Your task to perform on an android device: Add "alienware area 51" to the cart on bestbuy.com Image 0: 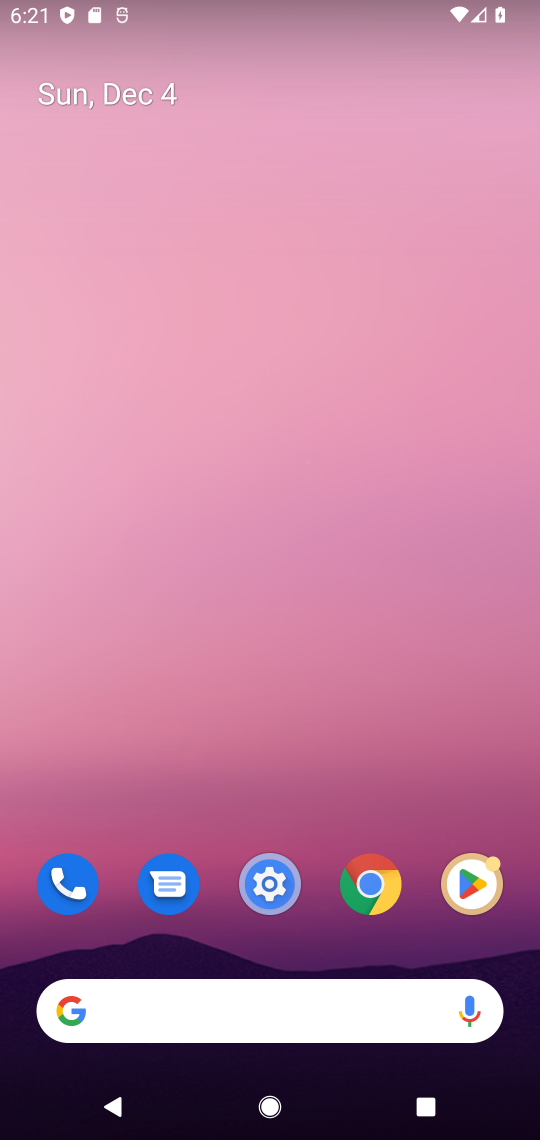
Step 0: drag from (175, 658) to (48, 36)
Your task to perform on an android device: Add "alienware area 51" to the cart on bestbuy.com Image 1: 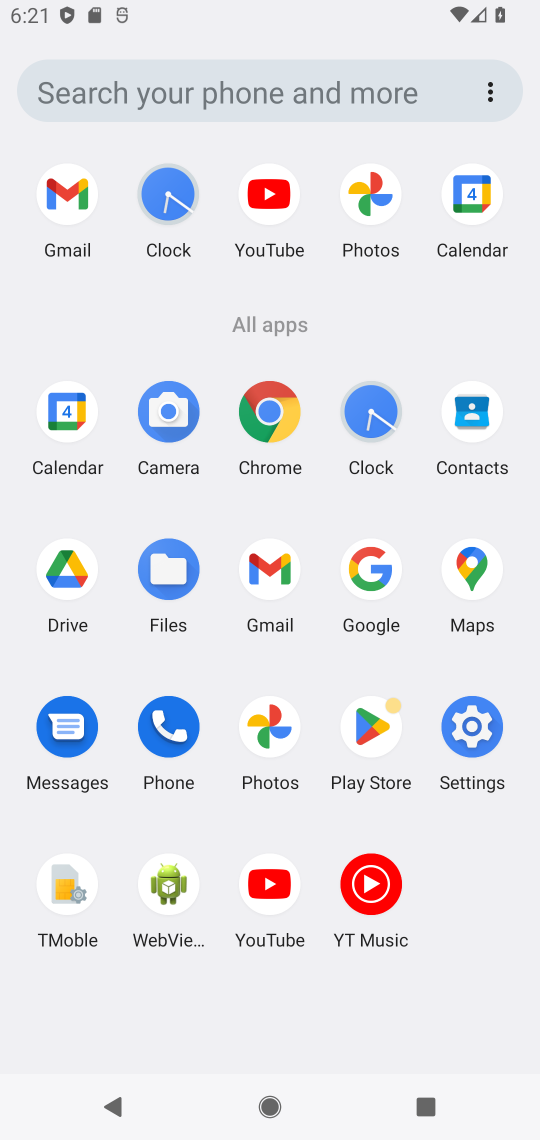
Step 1: click (384, 565)
Your task to perform on an android device: Add "alienware area 51" to the cart on bestbuy.com Image 2: 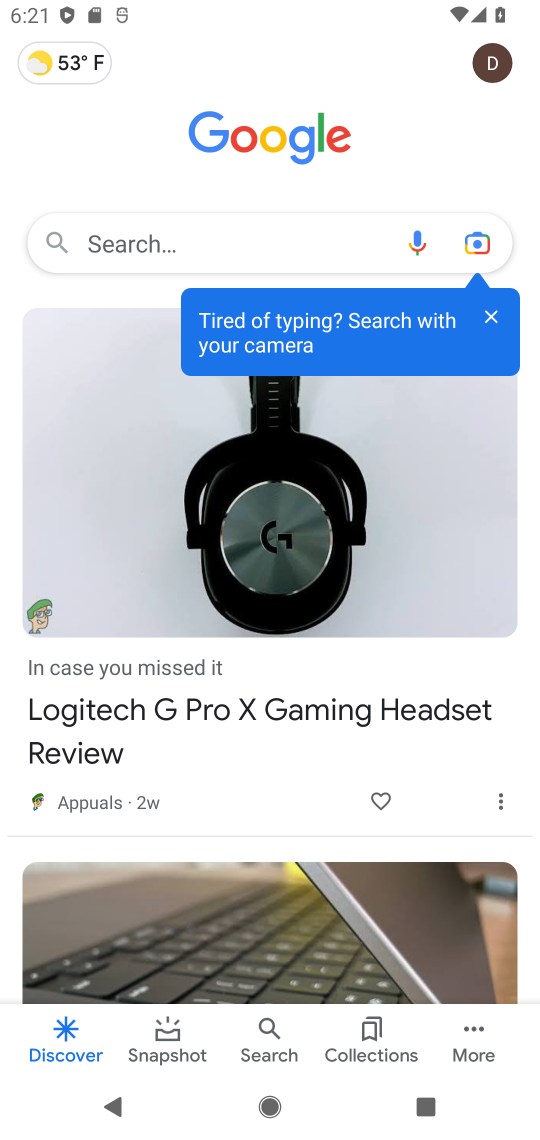
Step 2: click (110, 242)
Your task to perform on an android device: Add "alienware area 51" to the cart on bestbuy.com Image 3: 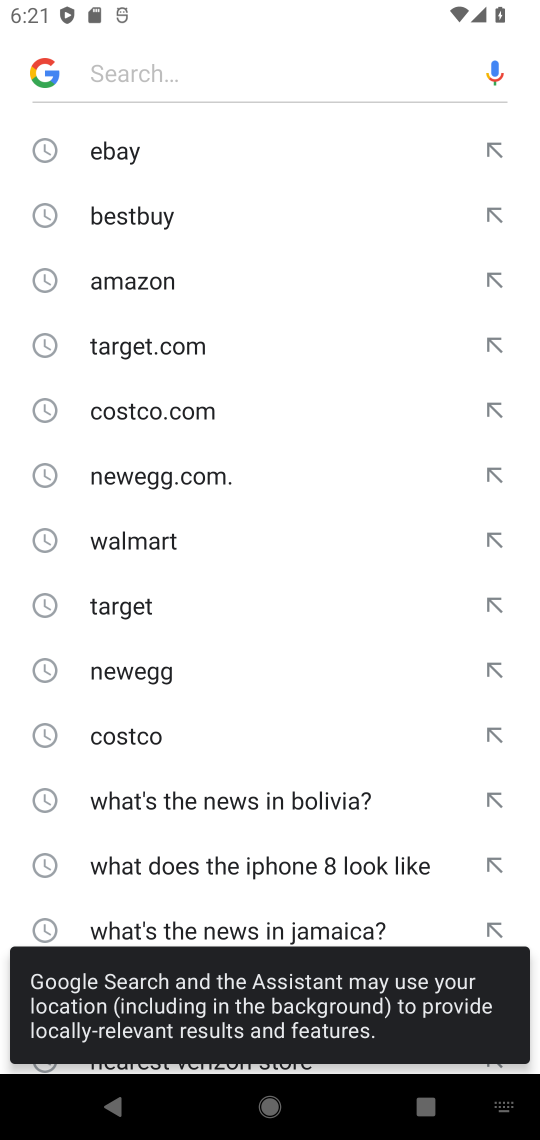
Step 3: click (121, 229)
Your task to perform on an android device: Add "alienware area 51" to the cart on bestbuy.com Image 4: 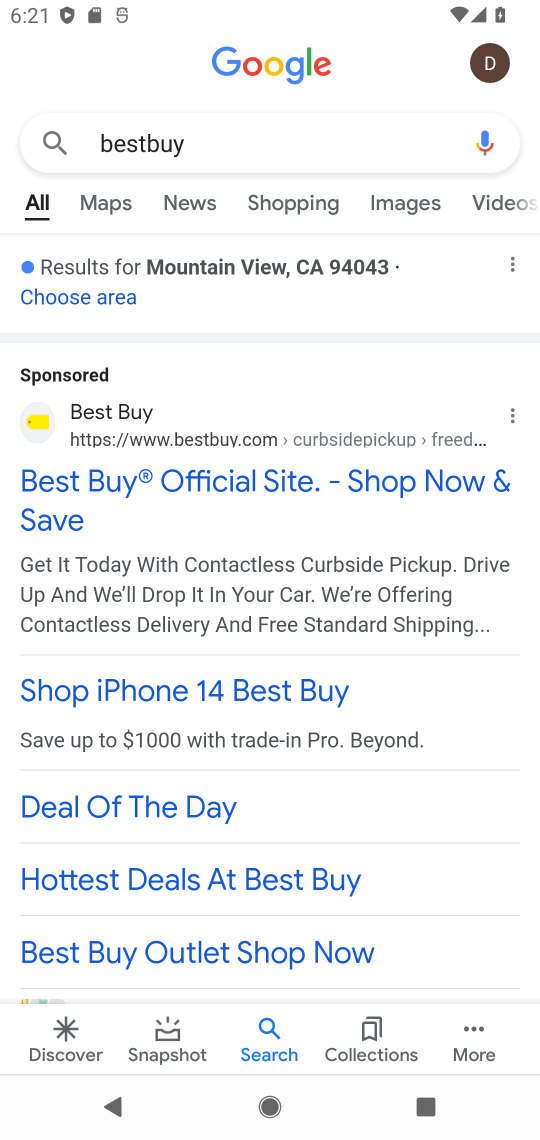
Step 4: click (234, 474)
Your task to perform on an android device: Add "alienware area 51" to the cart on bestbuy.com Image 5: 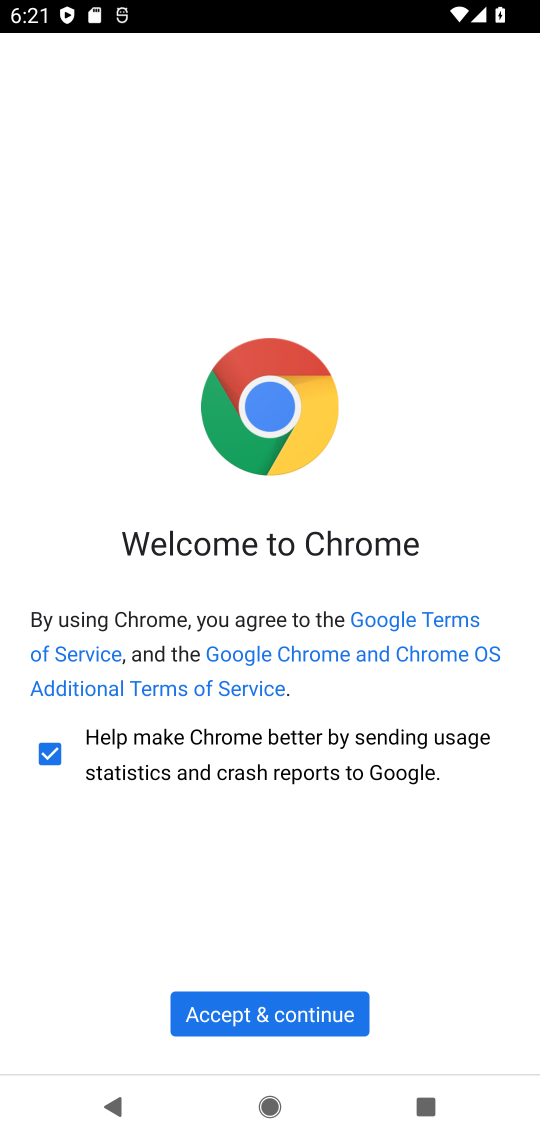
Step 5: click (282, 1030)
Your task to perform on an android device: Add "alienware area 51" to the cart on bestbuy.com Image 6: 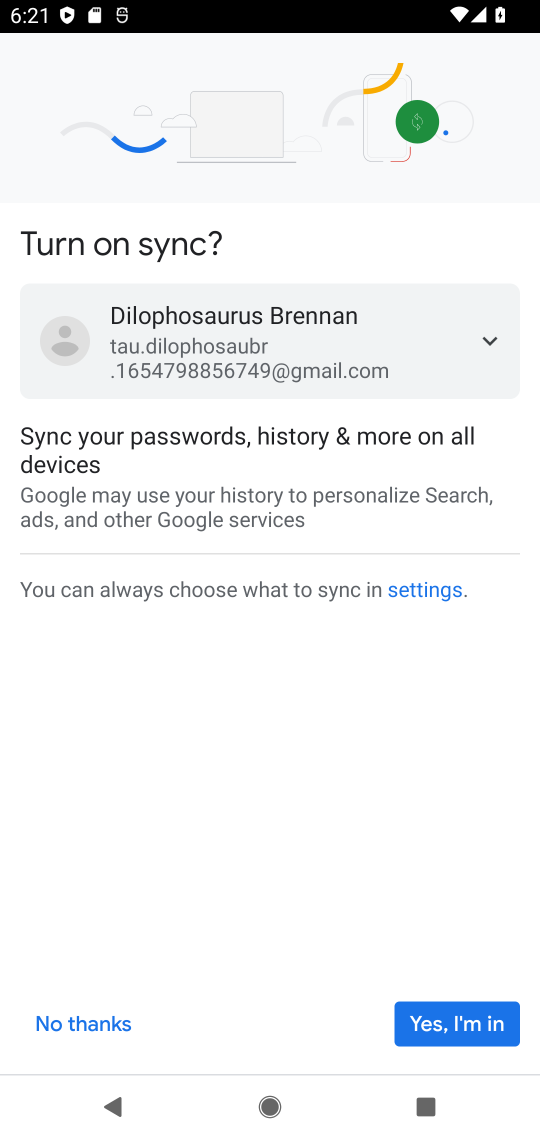
Step 6: click (408, 1026)
Your task to perform on an android device: Add "alienware area 51" to the cart on bestbuy.com Image 7: 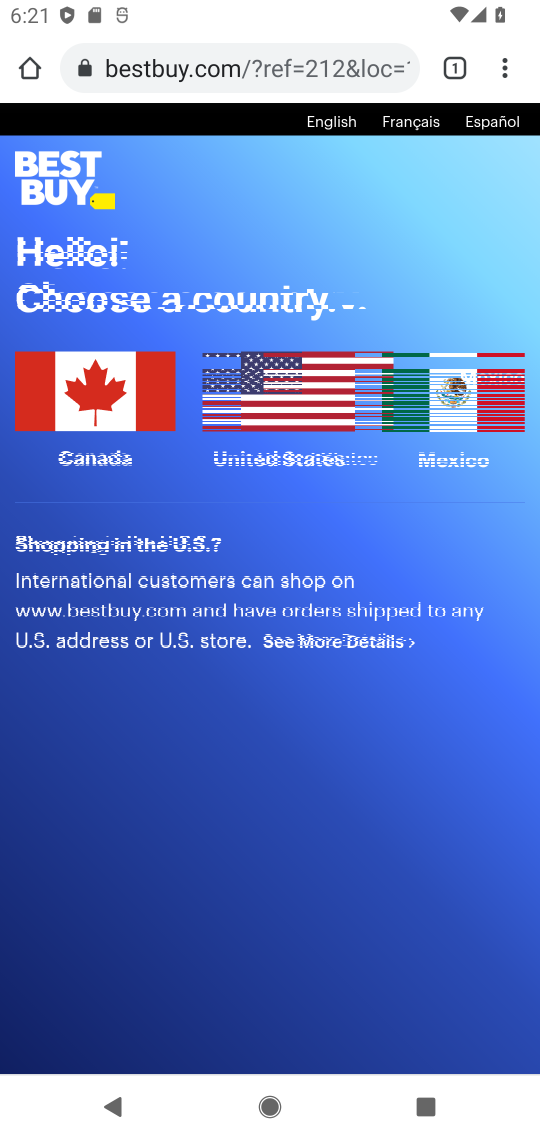
Step 7: click (268, 407)
Your task to perform on an android device: Add "alienware area 51" to the cart on bestbuy.com Image 8: 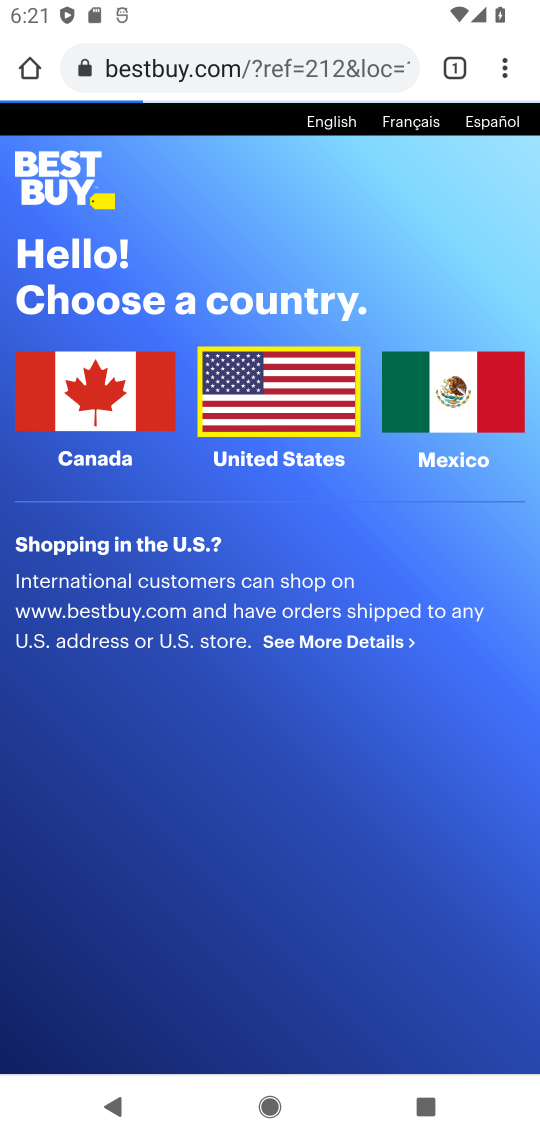
Step 8: click (276, 399)
Your task to perform on an android device: Add "alienware area 51" to the cart on bestbuy.com Image 9: 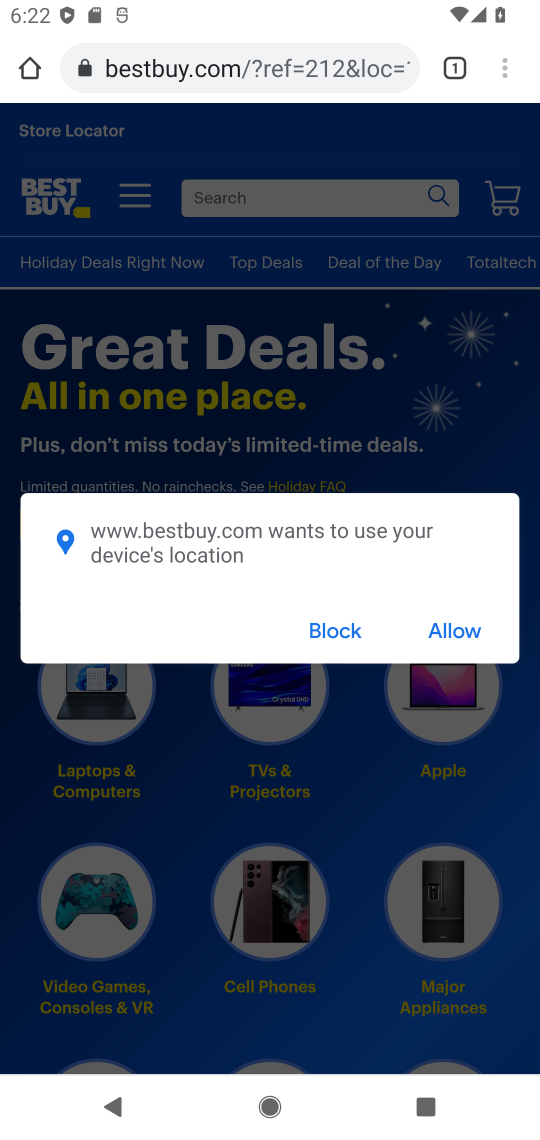
Step 9: click (452, 635)
Your task to perform on an android device: Add "alienware area 51" to the cart on bestbuy.com Image 10: 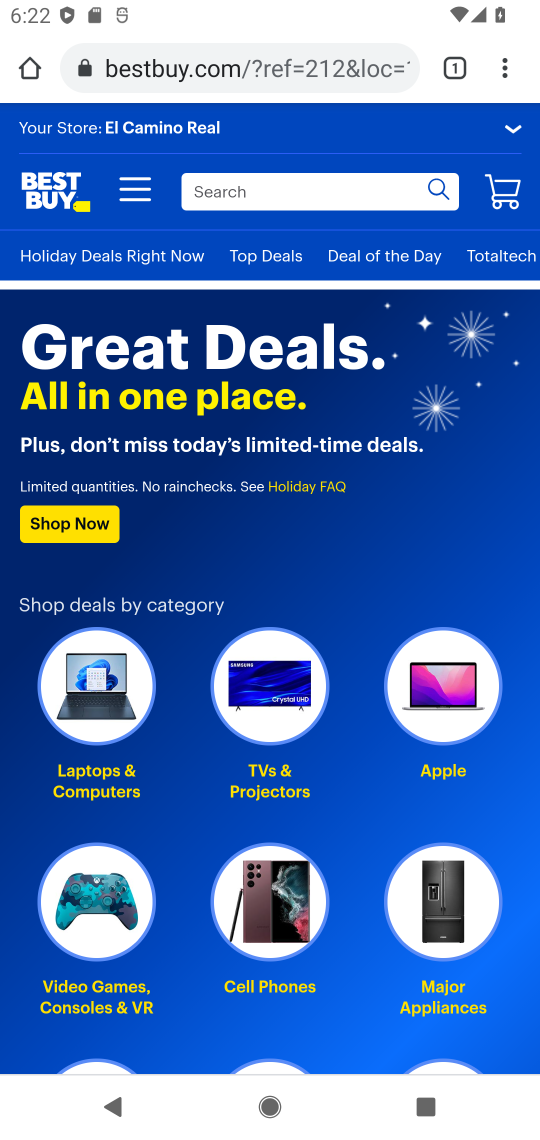
Step 10: click (203, 181)
Your task to perform on an android device: Add "alienware area 51" to the cart on bestbuy.com Image 11: 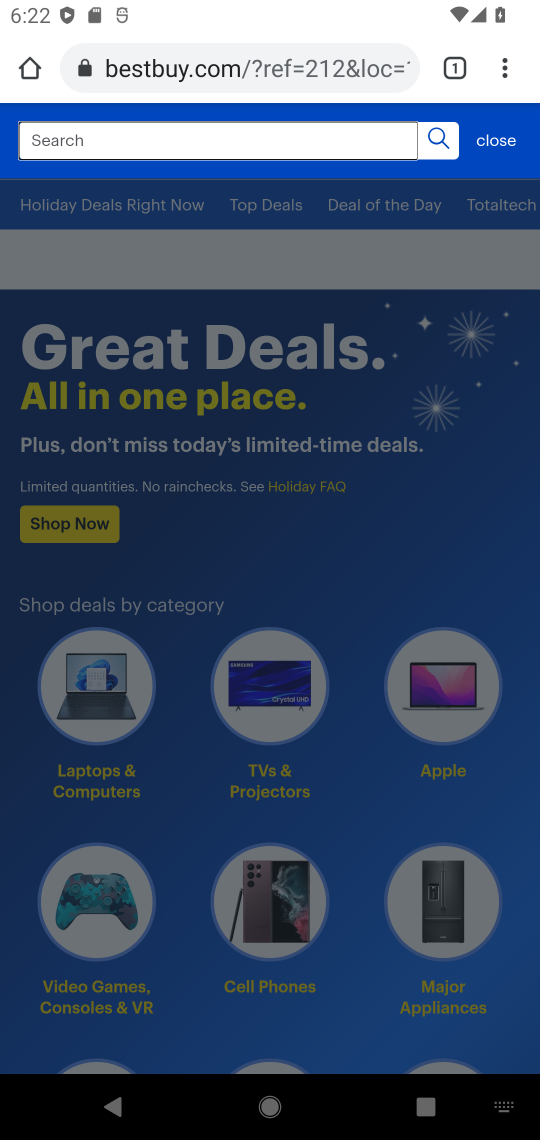
Step 11: type "alienware area 51"
Your task to perform on an android device: Add "alienware area 51" to the cart on bestbuy.com Image 12: 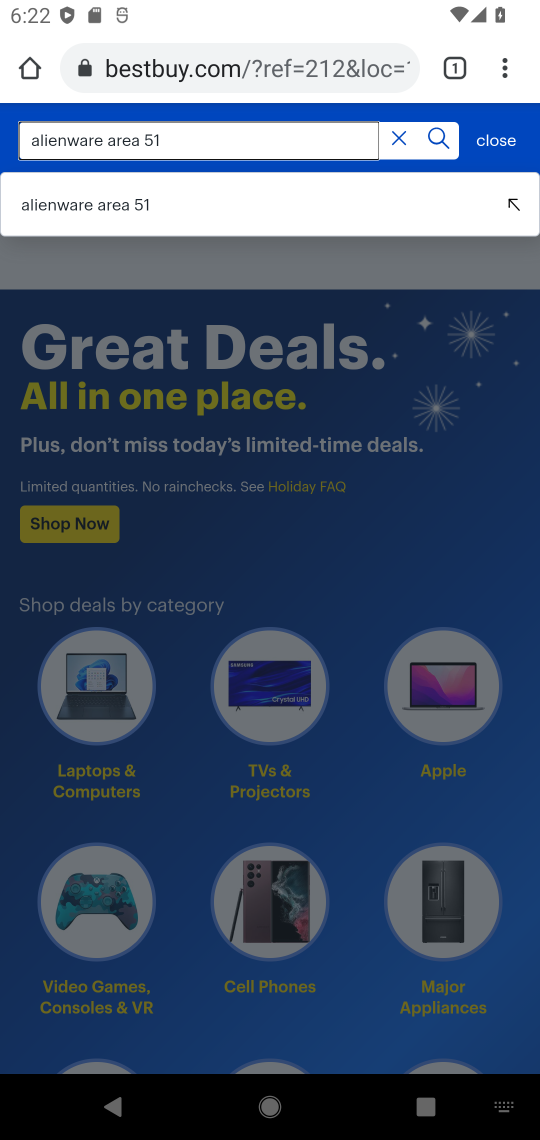
Step 12: click (124, 213)
Your task to perform on an android device: Add "alienware area 51" to the cart on bestbuy.com Image 13: 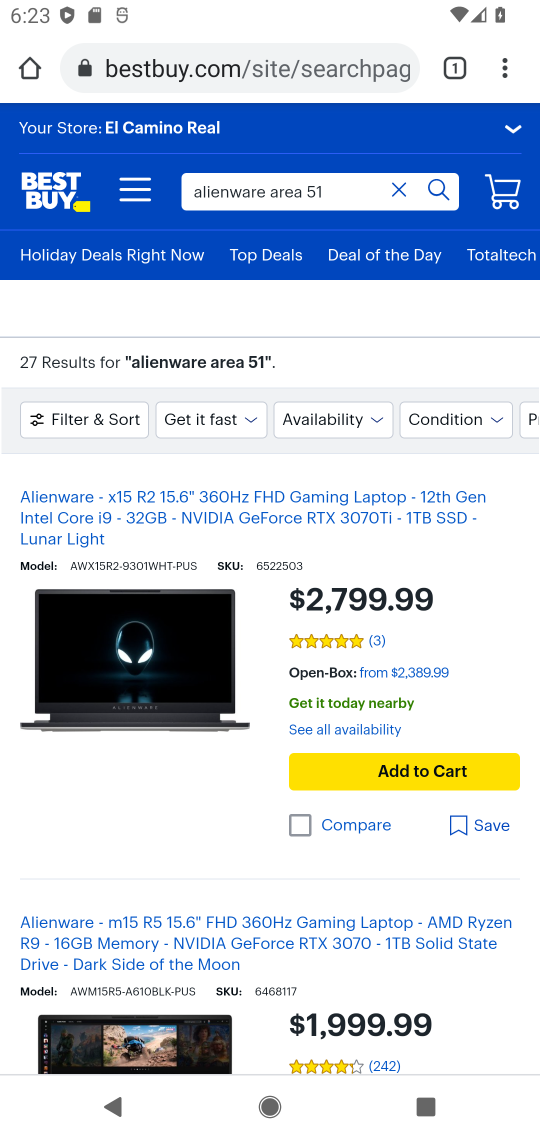
Step 13: click (399, 704)
Your task to perform on an android device: Add "alienware area 51" to the cart on bestbuy.com Image 14: 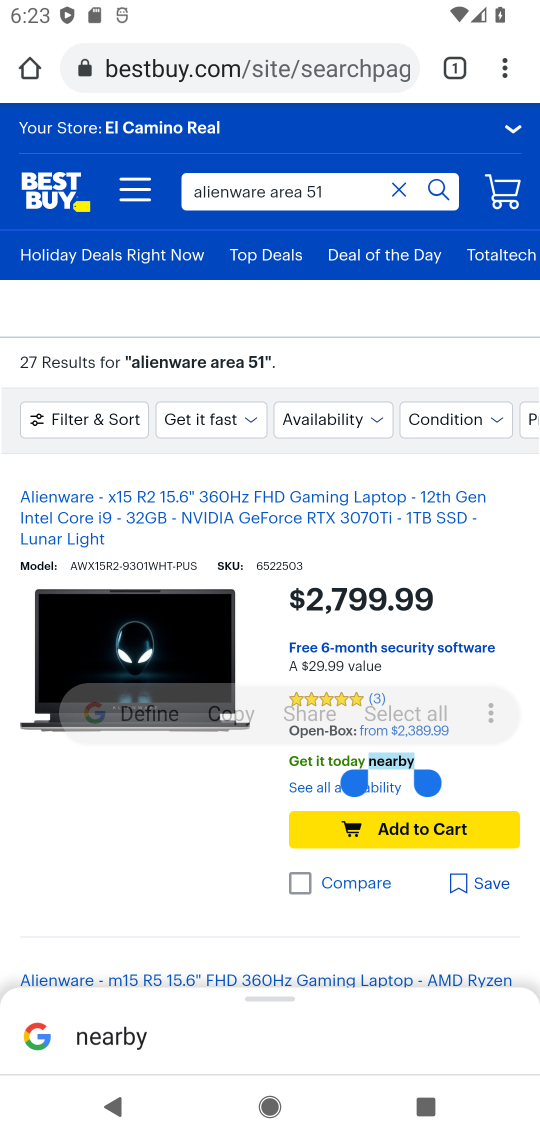
Step 14: click (423, 774)
Your task to perform on an android device: Add "alienware area 51" to the cart on bestbuy.com Image 15: 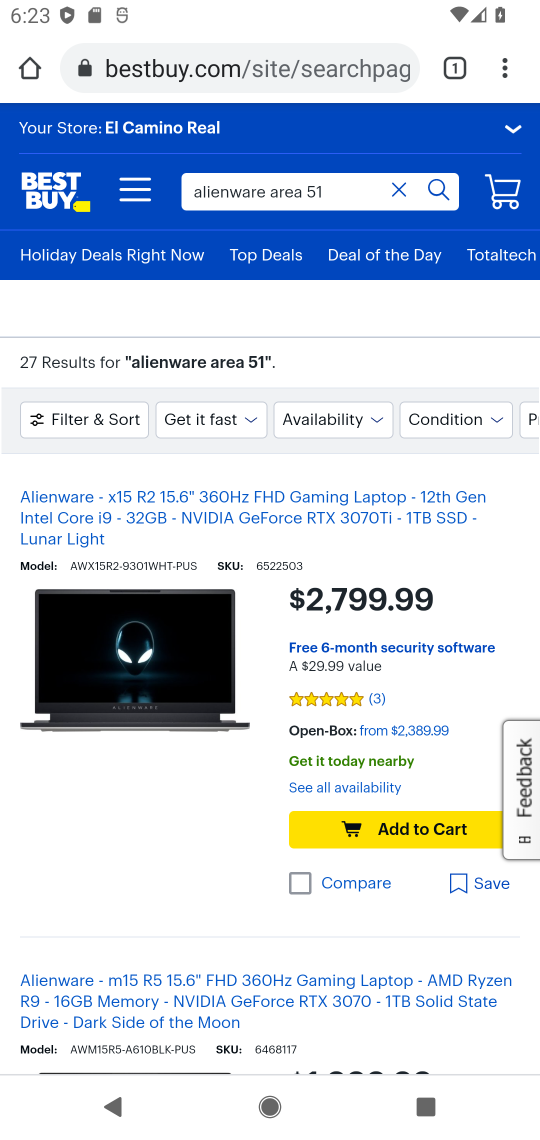
Step 15: click (435, 828)
Your task to perform on an android device: Add "alienware area 51" to the cart on bestbuy.com Image 16: 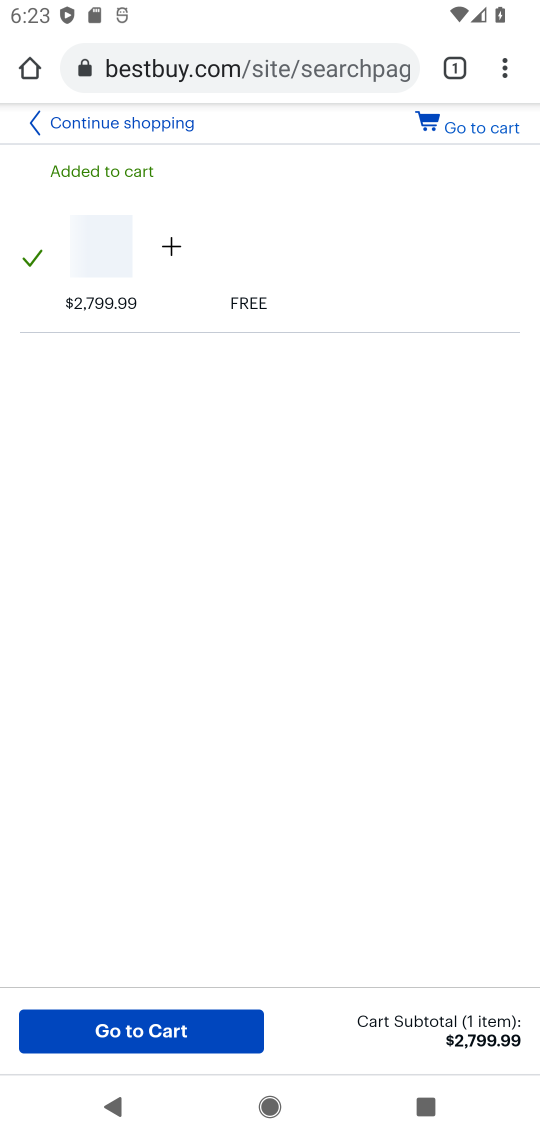
Step 16: task complete